Your task to perform on an android device: check out phone information Image 0: 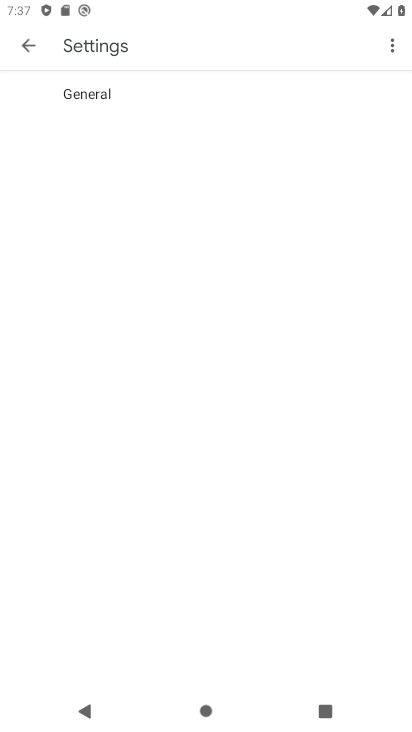
Step 0: press home button
Your task to perform on an android device: check out phone information Image 1: 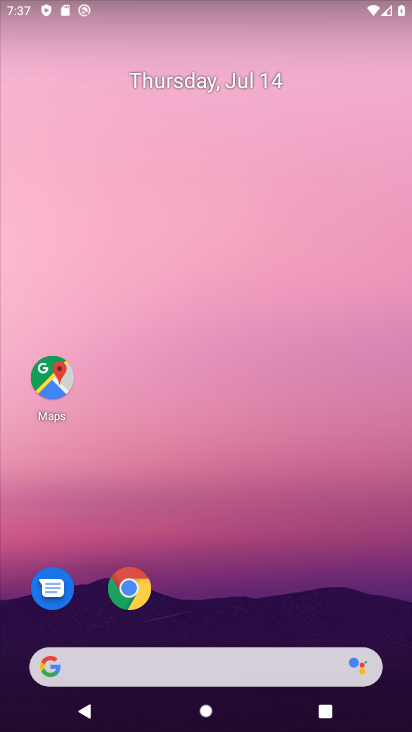
Step 1: drag from (392, 692) to (205, 198)
Your task to perform on an android device: check out phone information Image 2: 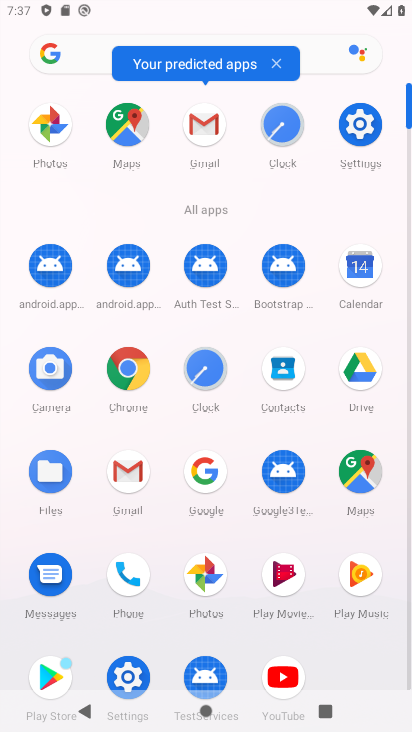
Step 2: drag from (357, 118) to (167, 376)
Your task to perform on an android device: check out phone information Image 3: 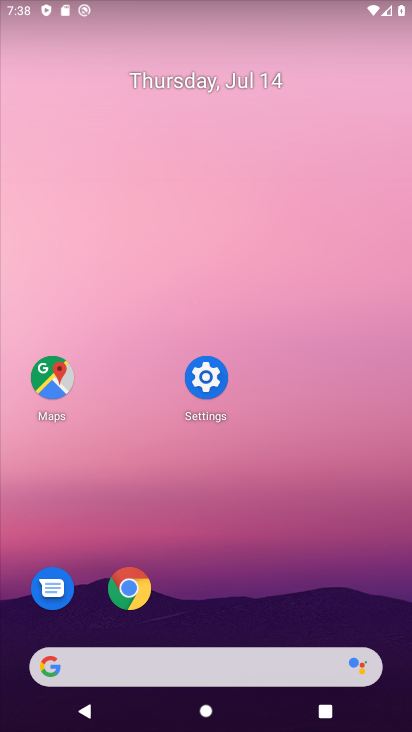
Step 3: click (203, 380)
Your task to perform on an android device: check out phone information Image 4: 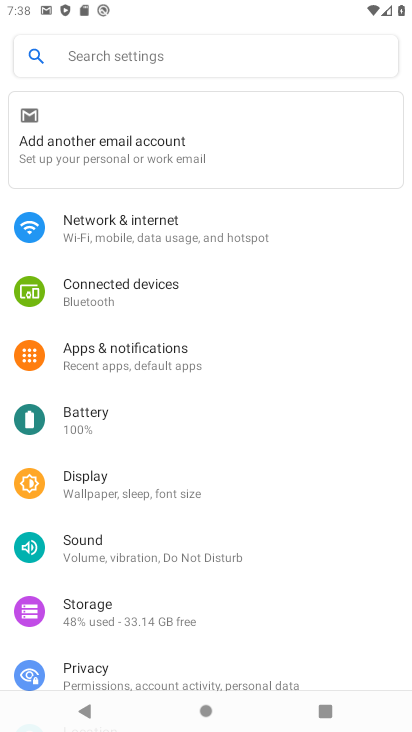
Step 4: drag from (332, 584) to (281, 66)
Your task to perform on an android device: check out phone information Image 5: 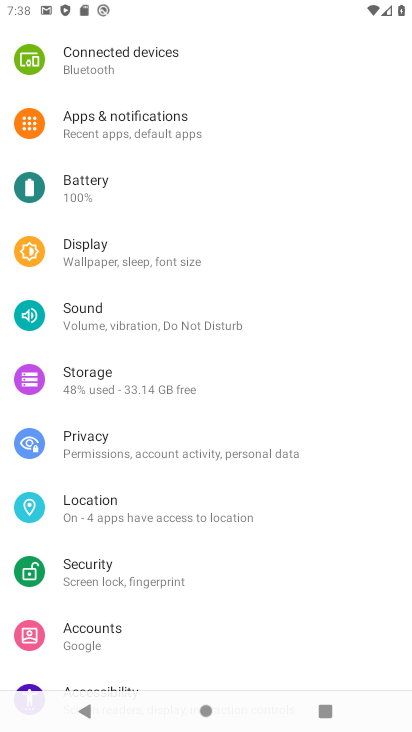
Step 5: drag from (325, 635) to (304, 210)
Your task to perform on an android device: check out phone information Image 6: 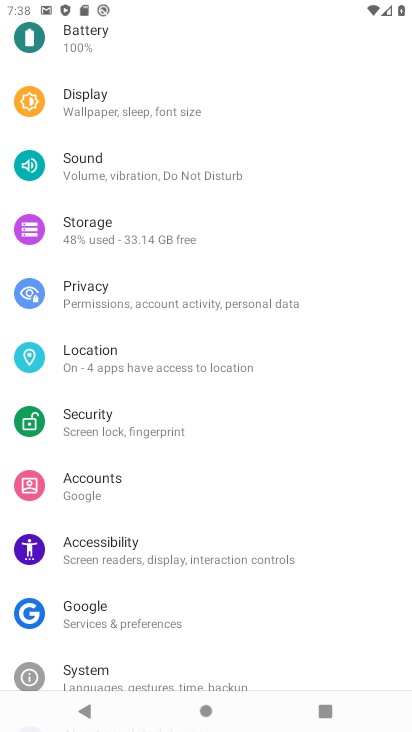
Step 6: drag from (335, 652) to (315, 152)
Your task to perform on an android device: check out phone information Image 7: 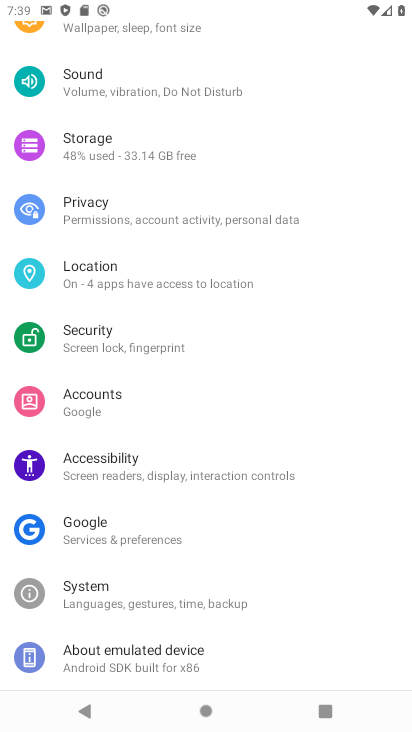
Step 7: click (127, 641)
Your task to perform on an android device: check out phone information Image 8: 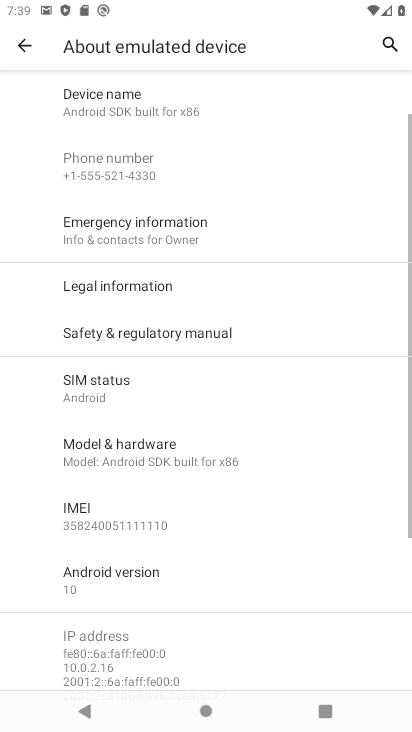
Step 8: task complete